Your task to perform on an android device: create a new album in the google photos Image 0: 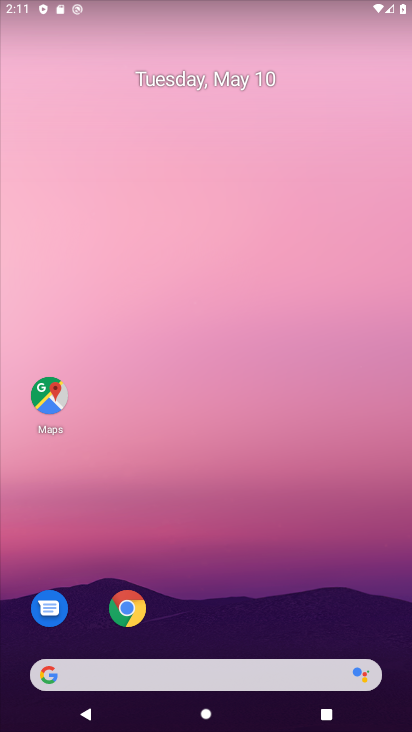
Step 0: drag from (311, 626) to (320, 41)
Your task to perform on an android device: create a new album in the google photos Image 1: 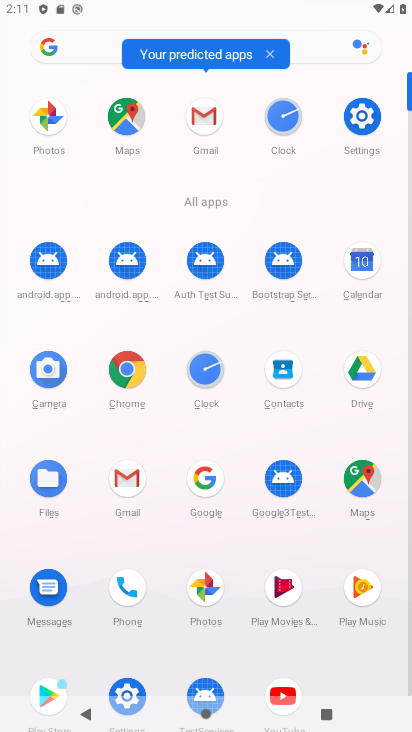
Step 1: click (207, 591)
Your task to perform on an android device: create a new album in the google photos Image 2: 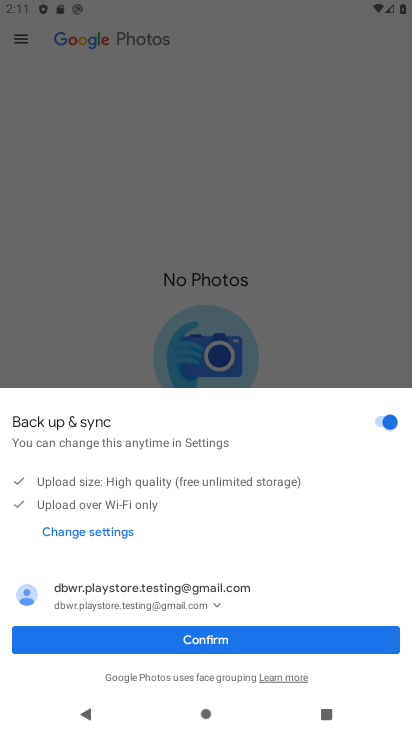
Step 2: click (202, 645)
Your task to perform on an android device: create a new album in the google photos Image 3: 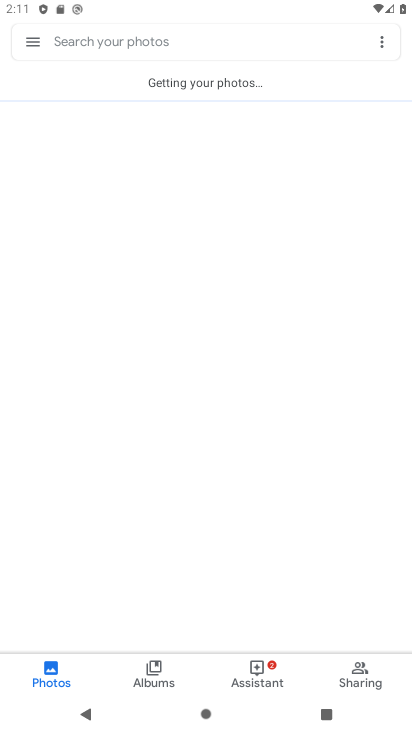
Step 3: drag from (163, 254) to (166, 366)
Your task to perform on an android device: create a new album in the google photos Image 4: 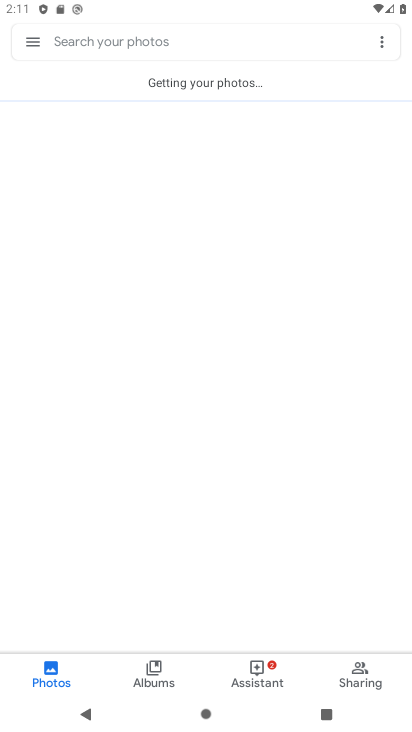
Step 4: drag from (178, 194) to (175, 339)
Your task to perform on an android device: create a new album in the google photos Image 5: 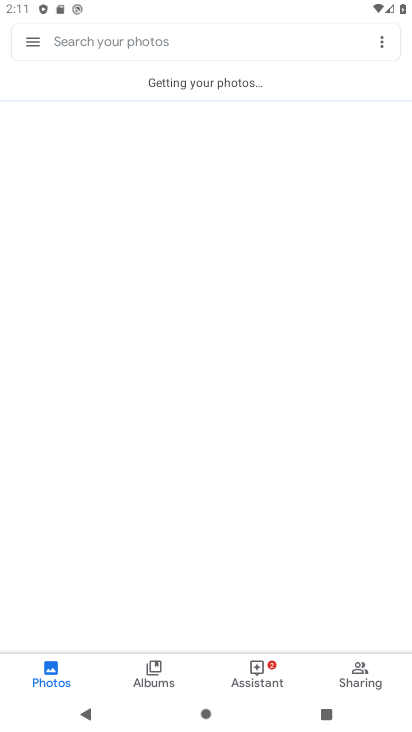
Step 5: click (51, 672)
Your task to perform on an android device: create a new album in the google photos Image 6: 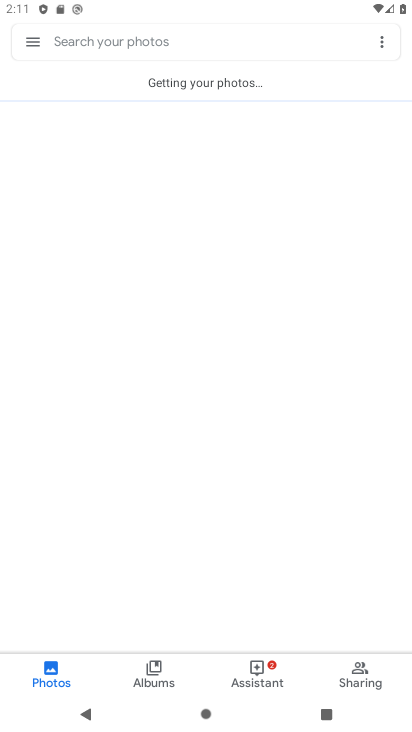
Step 6: drag from (172, 243) to (193, 476)
Your task to perform on an android device: create a new album in the google photos Image 7: 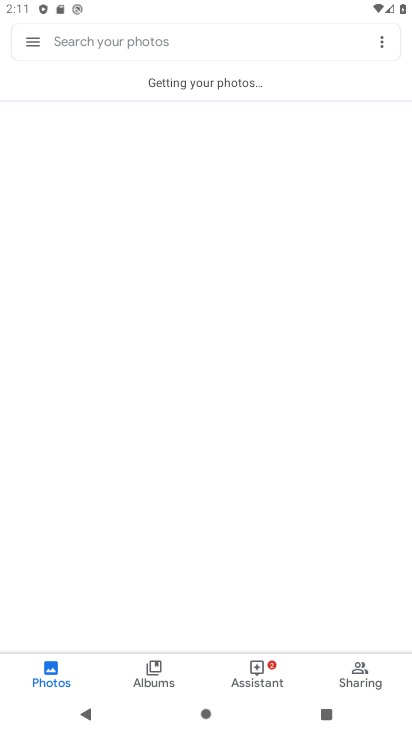
Step 7: drag from (159, 232) to (163, 424)
Your task to perform on an android device: create a new album in the google photos Image 8: 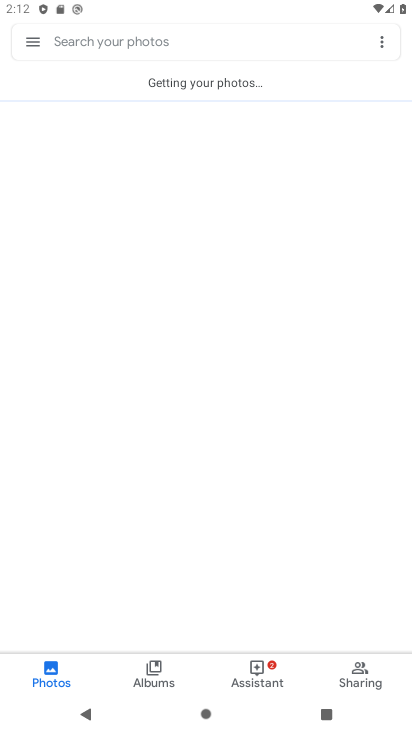
Step 8: drag from (172, 286) to (172, 396)
Your task to perform on an android device: create a new album in the google photos Image 9: 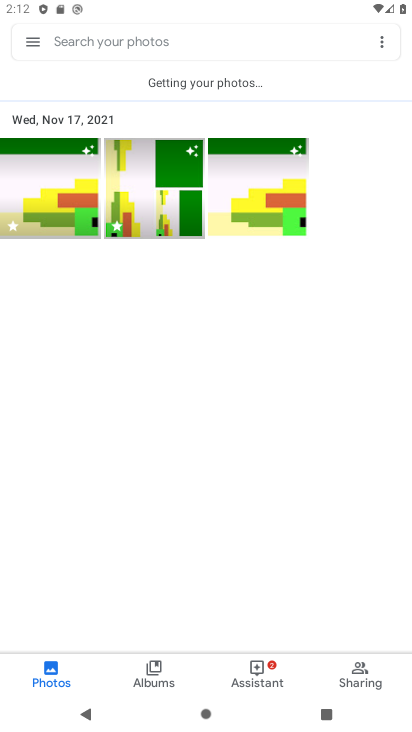
Step 9: click (70, 192)
Your task to perform on an android device: create a new album in the google photos Image 10: 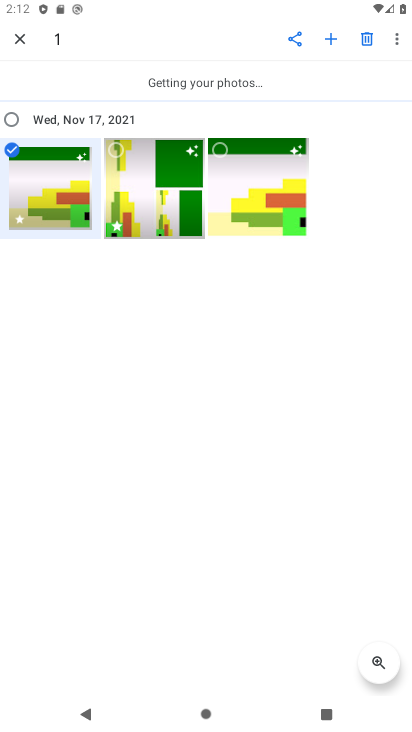
Step 10: click (332, 46)
Your task to perform on an android device: create a new album in the google photos Image 11: 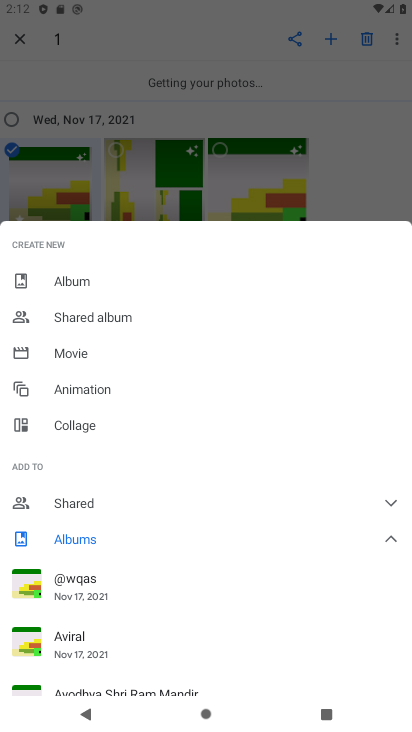
Step 11: click (76, 536)
Your task to perform on an android device: create a new album in the google photos Image 12: 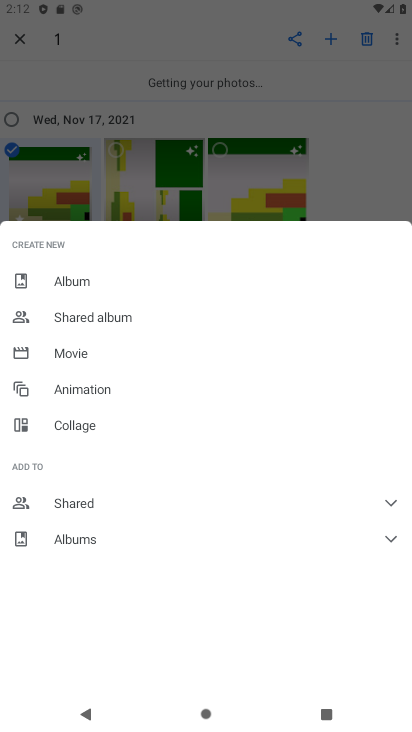
Step 12: click (71, 279)
Your task to perform on an android device: create a new album in the google photos Image 13: 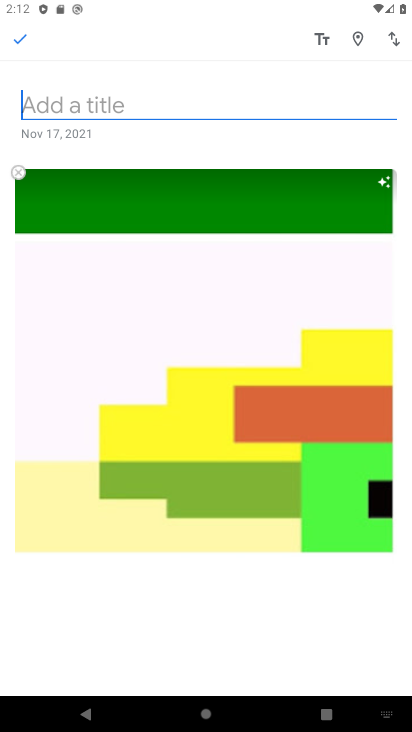
Step 13: click (62, 110)
Your task to perform on an android device: create a new album in the google photos Image 14: 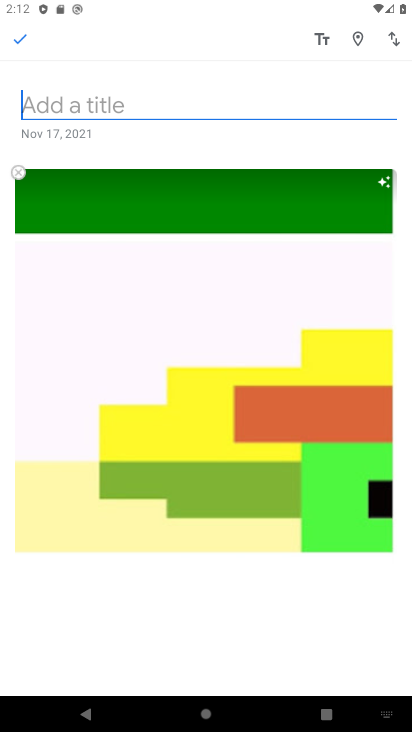
Step 14: type "new 1"
Your task to perform on an android device: create a new album in the google photos Image 15: 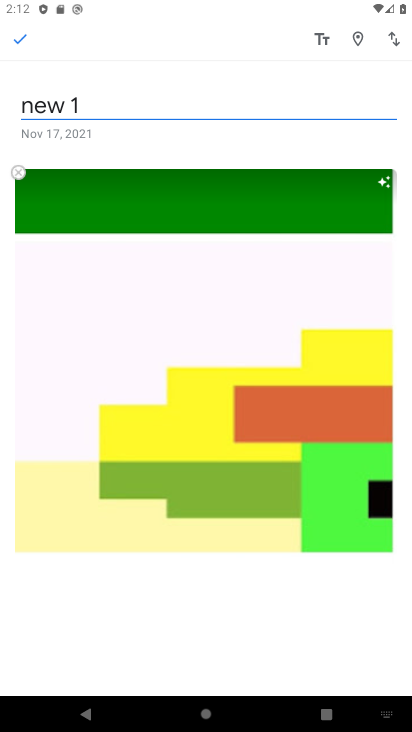
Step 15: click (19, 43)
Your task to perform on an android device: create a new album in the google photos Image 16: 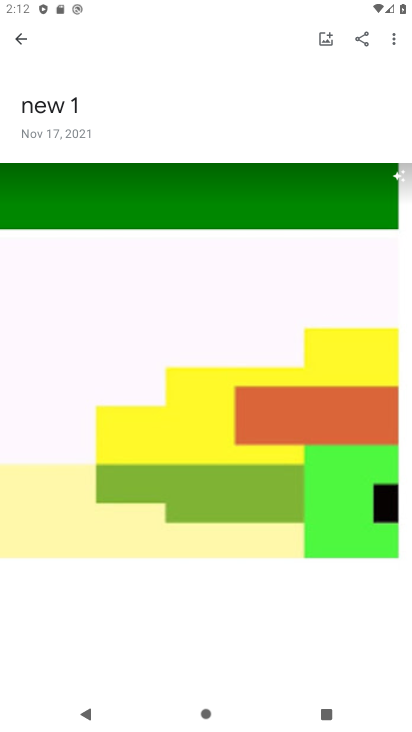
Step 16: task complete